Your task to perform on an android device: What's the news in Vietnam? Image 0: 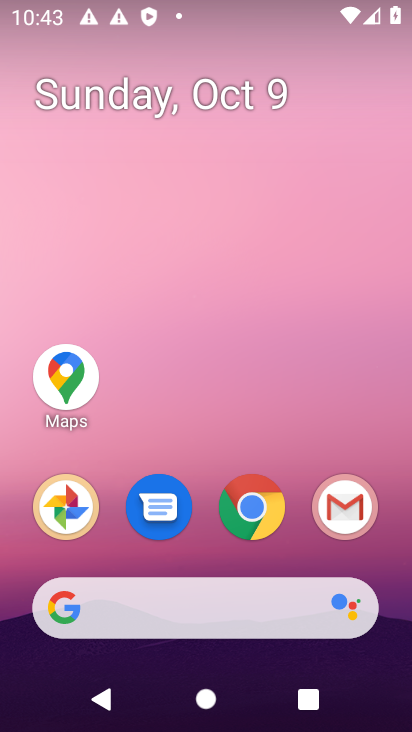
Step 0: press home button
Your task to perform on an android device: What's the news in Vietnam? Image 1: 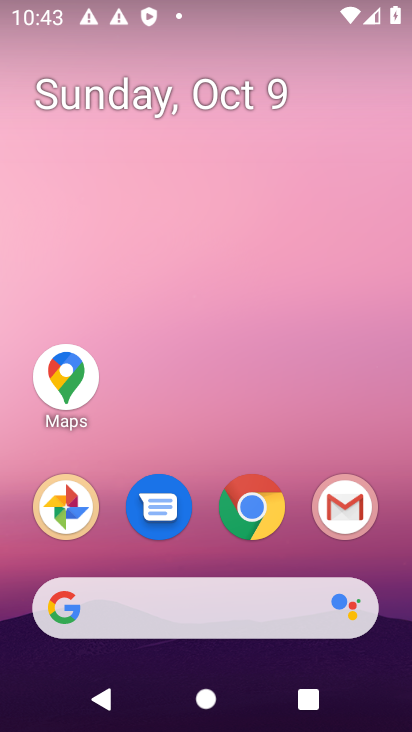
Step 1: click (194, 611)
Your task to perform on an android device: What's the news in Vietnam? Image 2: 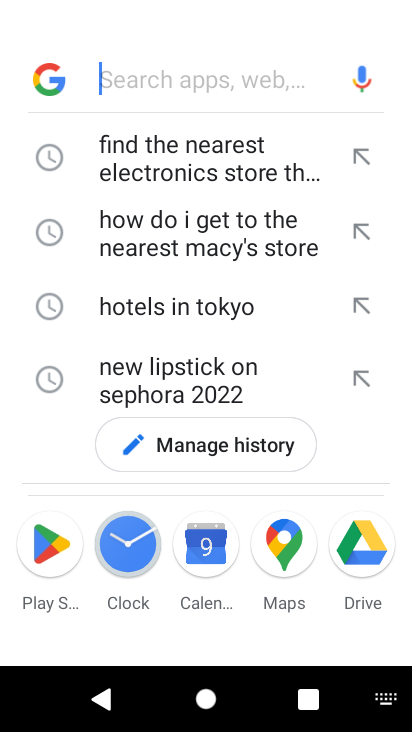
Step 2: type "What's the news in Vietnam"
Your task to perform on an android device: What's the news in Vietnam? Image 3: 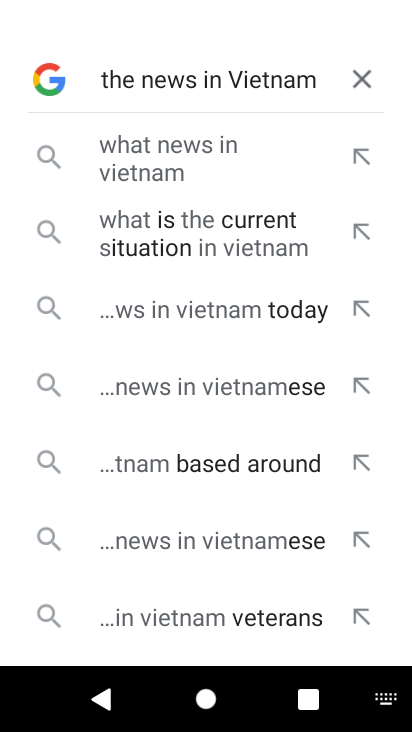
Step 3: press enter
Your task to perform on an android device: What's the news in Vietnam? Image 4: 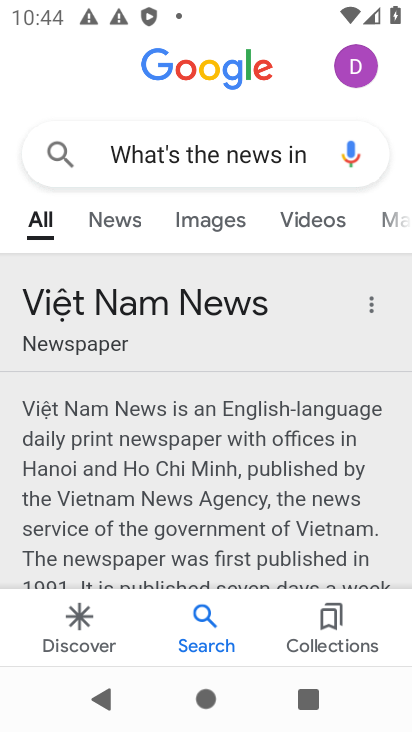
Step 4: drag from (304, 483) to (292, 254)
Your task to perform on an android device: What's the news in Vietnam? Image 5: 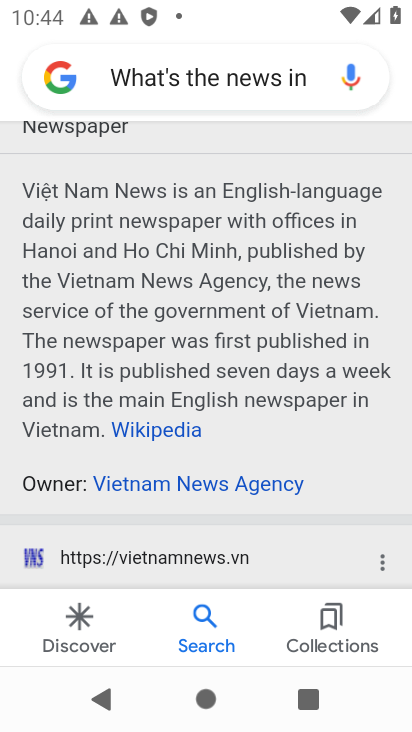
Step 5: drag from (277, 500) to (276, 324)
Your task to perform on an android device: What's the news in Vietnam? Image 6: 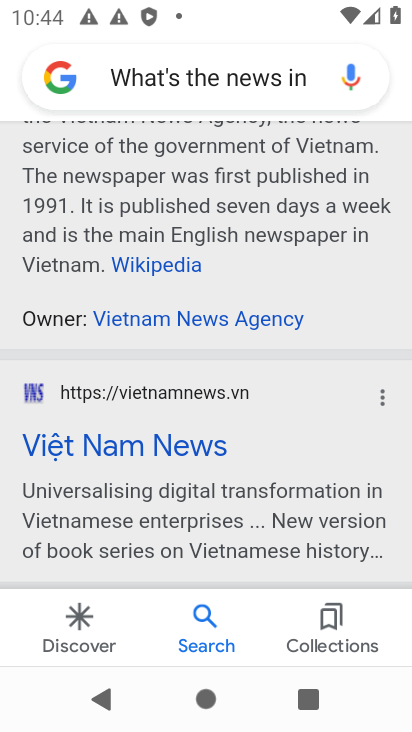
Step 6: click (171, 446)
Your task to perform on an android device: What's the news in Vietnam? Image 7: 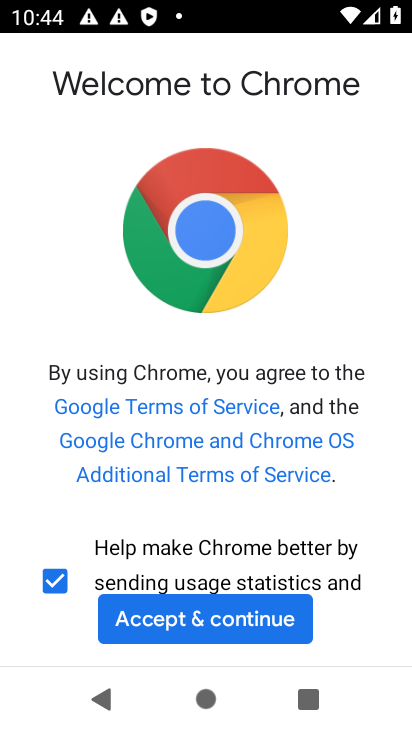
Step 7: click (251, 623)
Your task to perform on an android device: What's the news in Vietnam? Image 8: 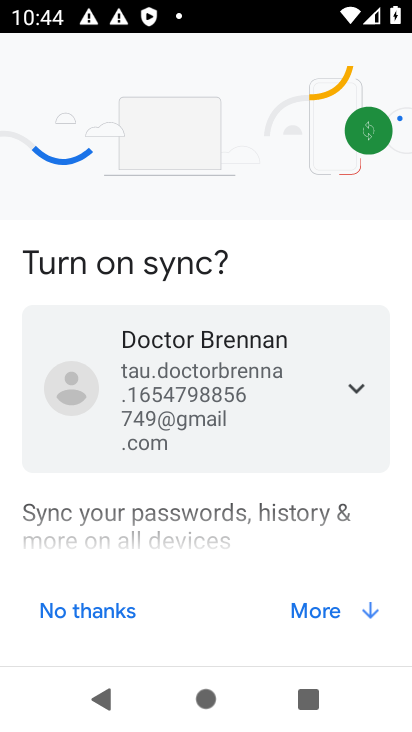
Step 8: click (101, 612)
Your task to perform on an android device: What's the news in Vietnam? Image 9: 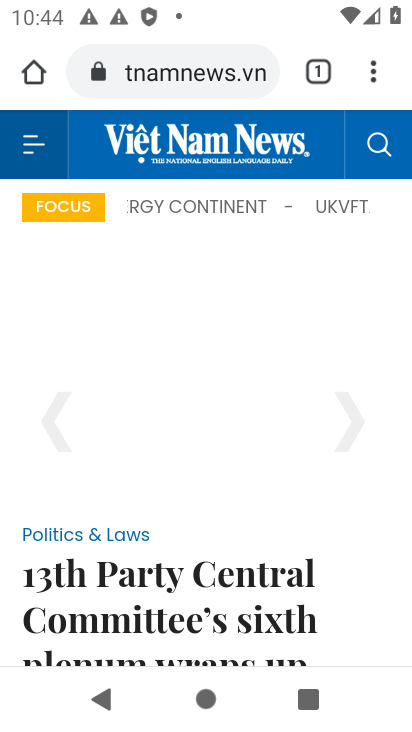
Step 9: task complete